Your task to perform on an android device: find photos in the google photos app Image 0: 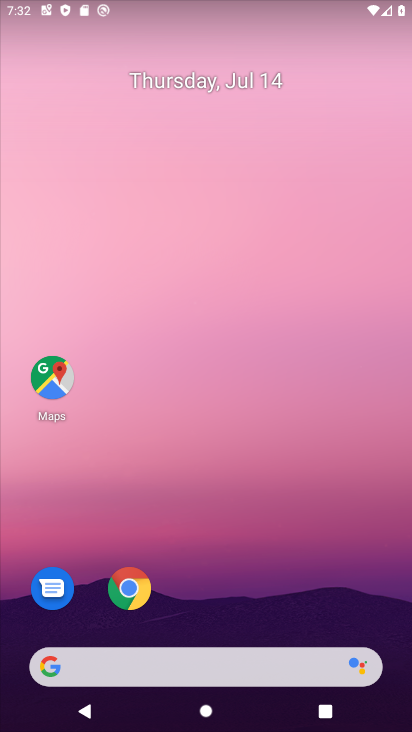
Step 0: drag from (341, 610) to (268, 25)
Your task to perform on an android device: find photos in the google photos app Image 1: 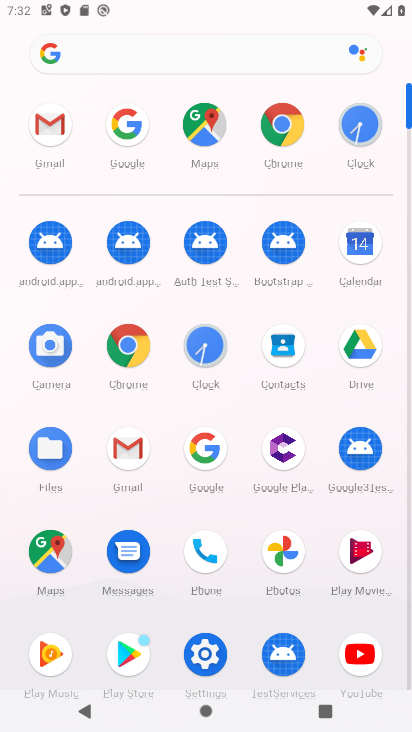
Step 1: click (264, 546)
Your task to perform on an android device: find photos in the google photos app Image 2: 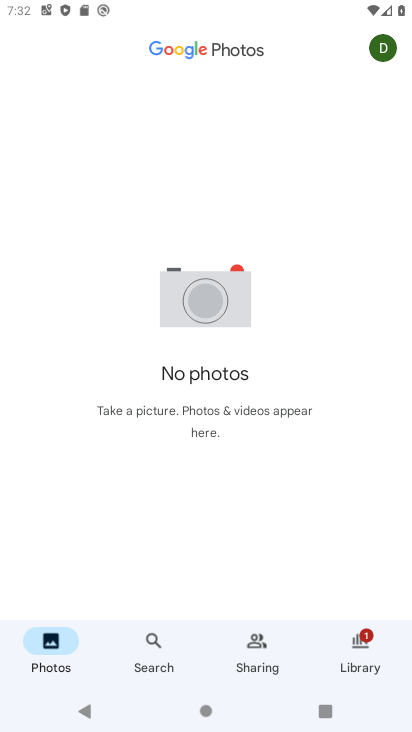
Step 2: task complete